Your task to perform on an android device: change the clock display to show seconds Image 0: 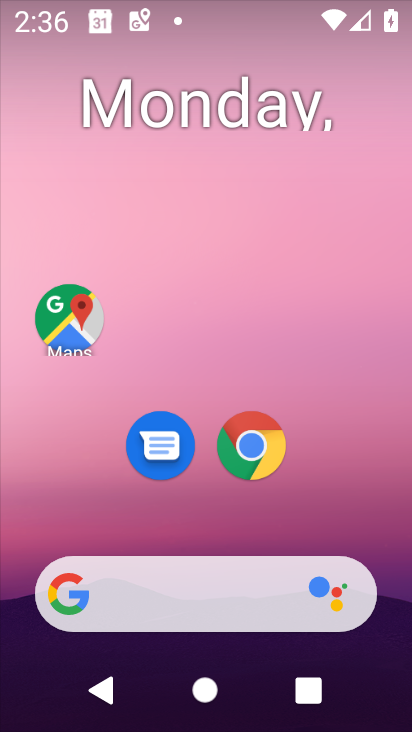
Step 0: drag from (319, 526) to (304, 142)
Your task to perform on an android device: change the clock display to show seconds Image 1: 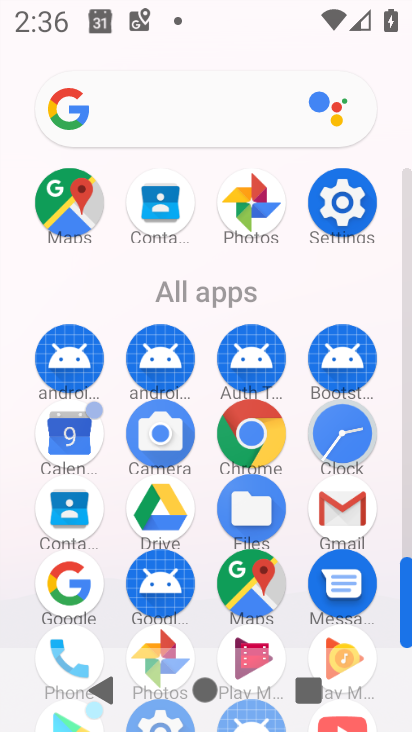
Step 1: click (351, 437)
Your task to perform on an android device: change the clock display to show seconds Image 2: 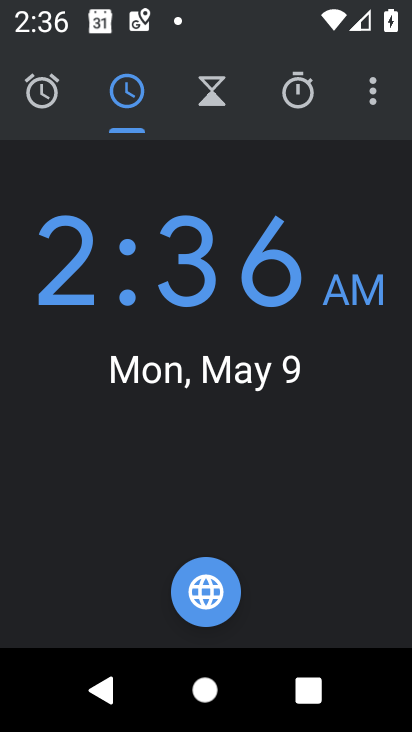
Step 2: click (361, 93)
Your task to perform on an android device: change the clock display to show seconds Image 3: 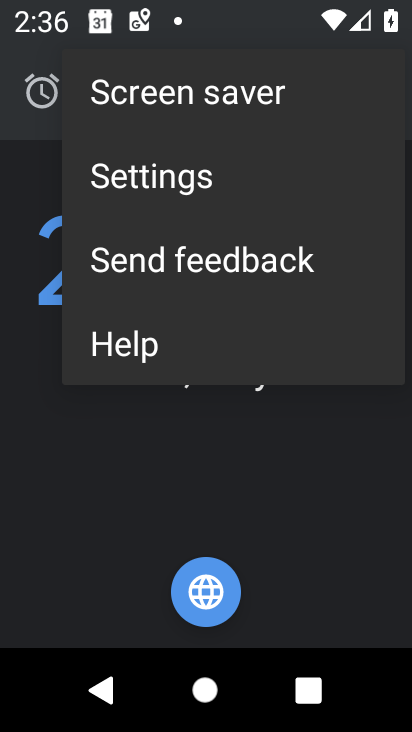
Step 3: click (263, 166)
Your task to perform on an android device: change the clock display to show seconds Image 4: 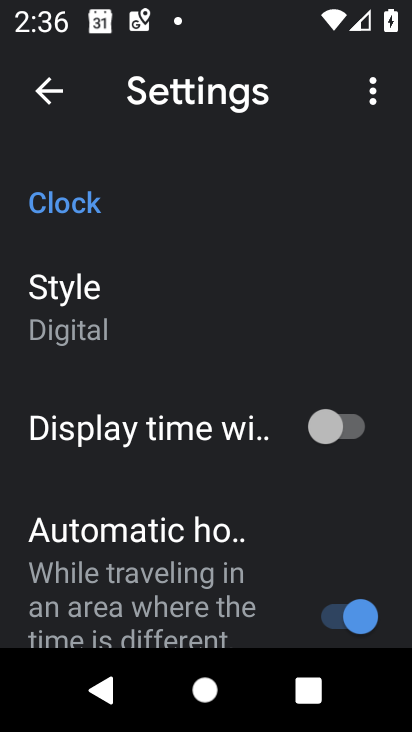
Step 4: click (323, 428)
Your task to perform on an android device: change the clock display to show seconds Image 5: 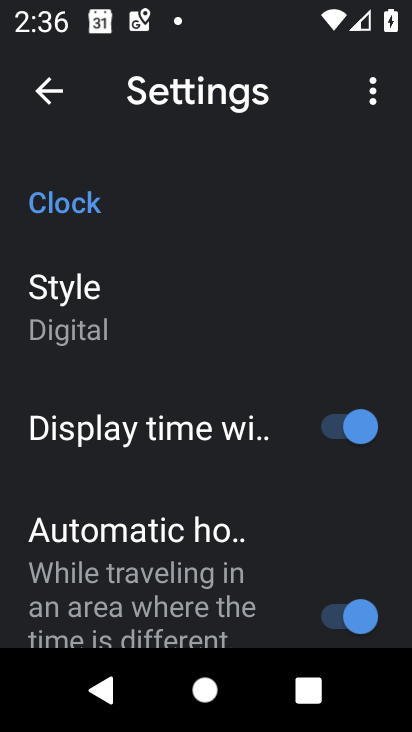
Step 5: task complete